Your task to perform on an android device: Show me productivity apps on the Play Store Image 0: 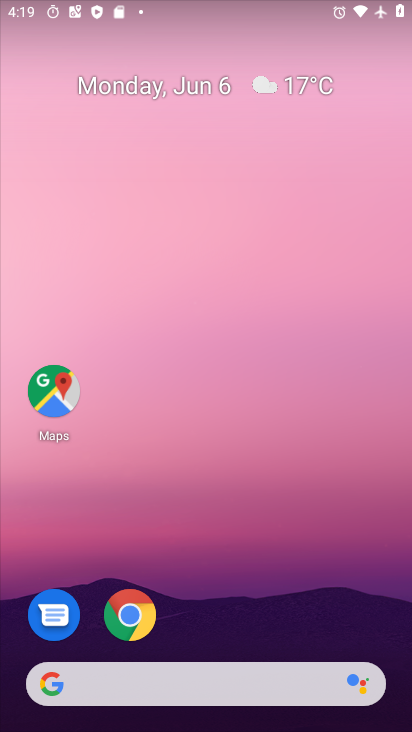
Step 0: drag from (251, 547) to (168, 0)
Your task to perform on an android device: Show me productivity apps on the Play Store Image 1: 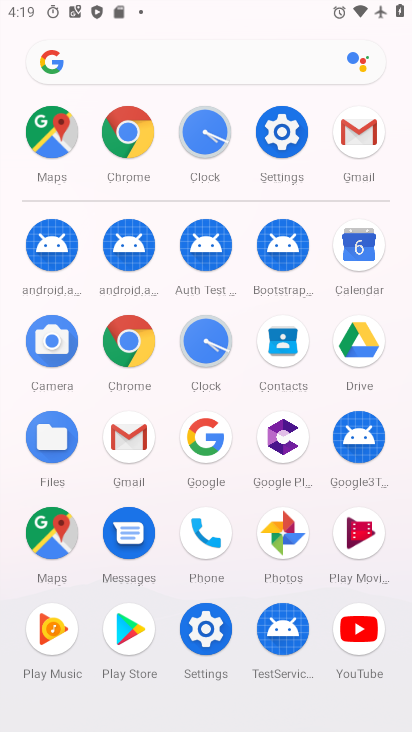
Step 1: click (130, 622)
Your task to perform on an android device: Show me productivity apps on the Play Store Image 2: 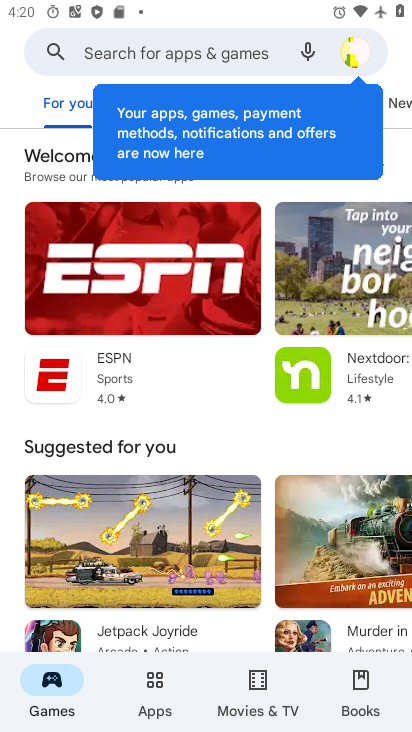
Step 2: drag from (174, 563) to (166, 248)
Your task to perform on an android device: Show me productivity apps on the Play Store Image 3: 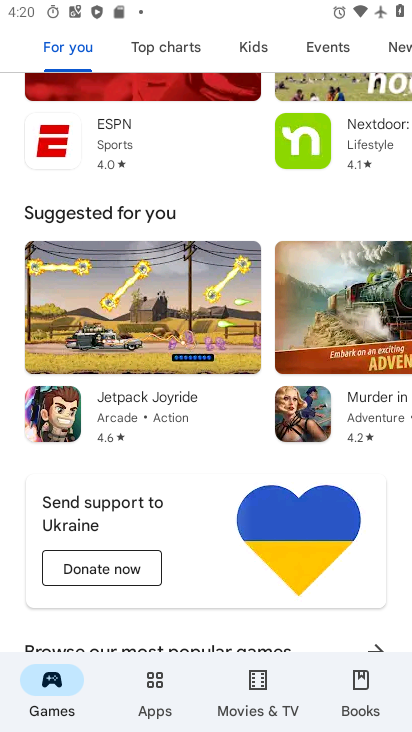
Step 3: drag from (202, 557) to (193, 209)
Your task to perform on an android device: Show me productivity apps on the Play Store Image 4: 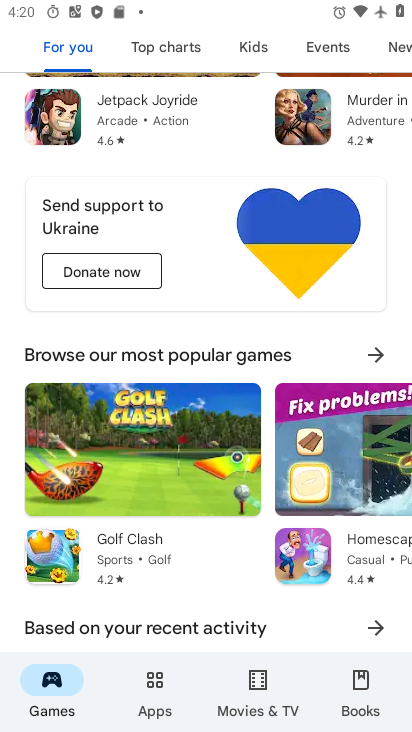
Step 4: click (154, 682)
Your task to perform on an android device: Show me productivity apps on the Play Store Image 5: 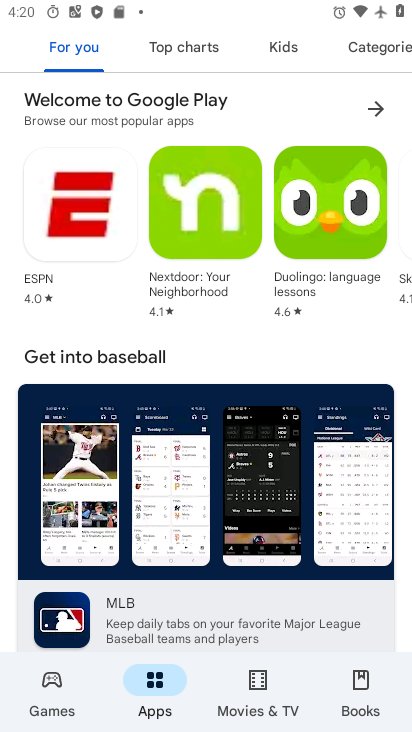
Step 5: click (368, 47)
Your task to perform on an android device: Show me productivity apps on the Play Store Image 6: 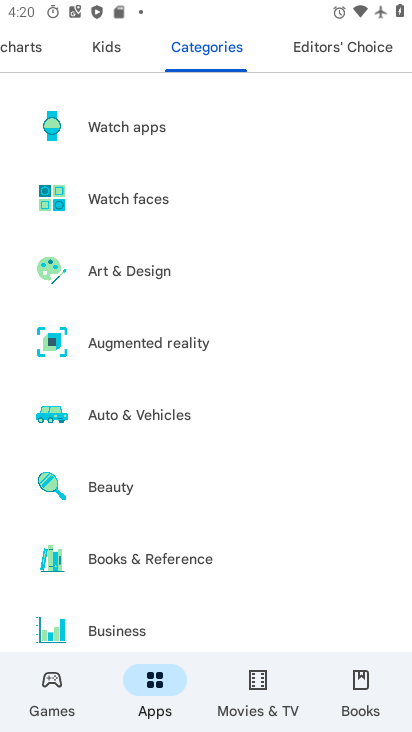
Step 6: drag from (225, 552) to (248, 73)
Your task to perform on an android device: Show me productivity apps on the Play Store Image 7: 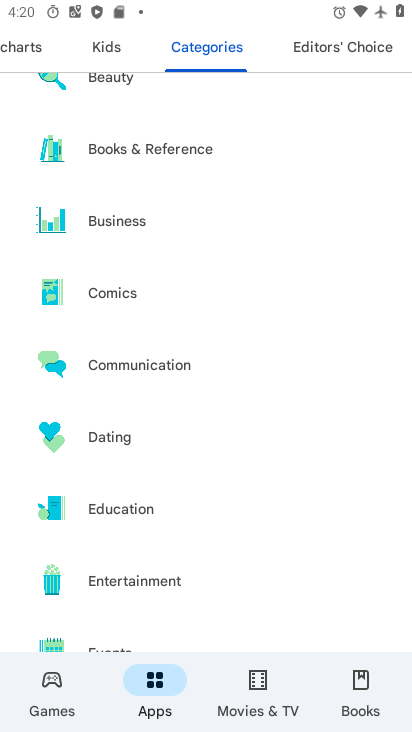
Step 7: drag from (202, 330) to (210, 128)
Your task to perform on an android device: Show me productivity apps on the Play Store Image 8: 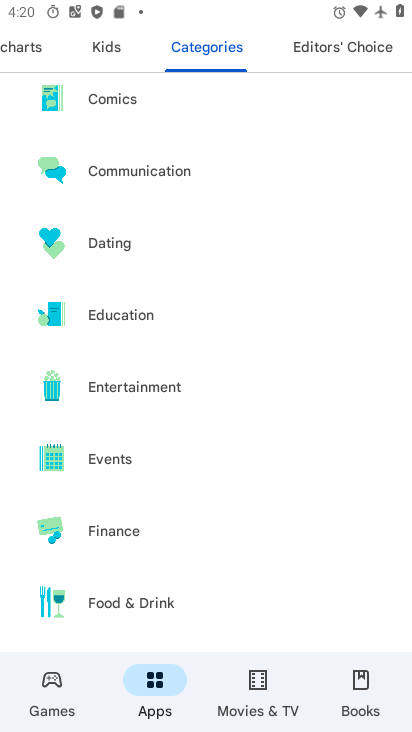
Step 8: drag from (199, 575) to (204, 147)
Your task to perform on an android device: Show me productivity apps on the Play Store Image 9: 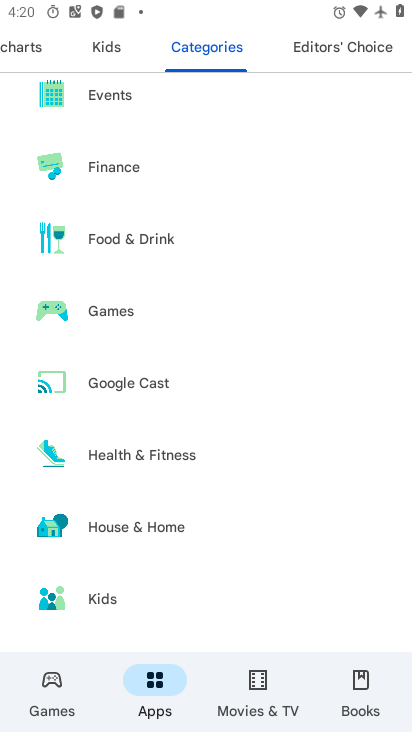
Step 9: drag from (181, 550) to (207, 93)
Your task to perform on an android device: Show me productivity apps on the Play Store Image 10: 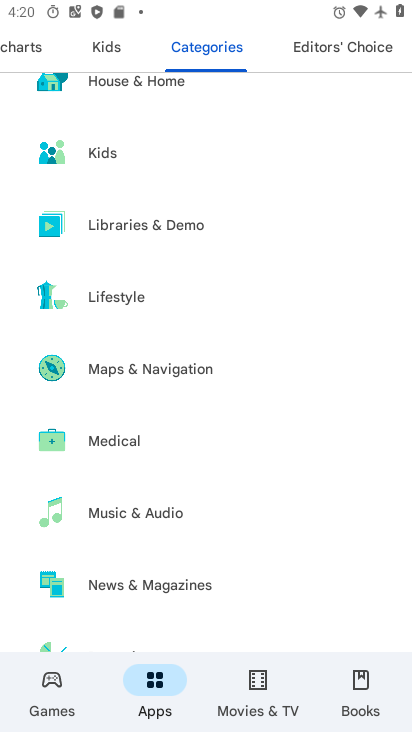
Step 10: drag from (155, 562) to (176, 98)
Your task to perform on an android device: Show me productivity apps on the Play Store Image 11: 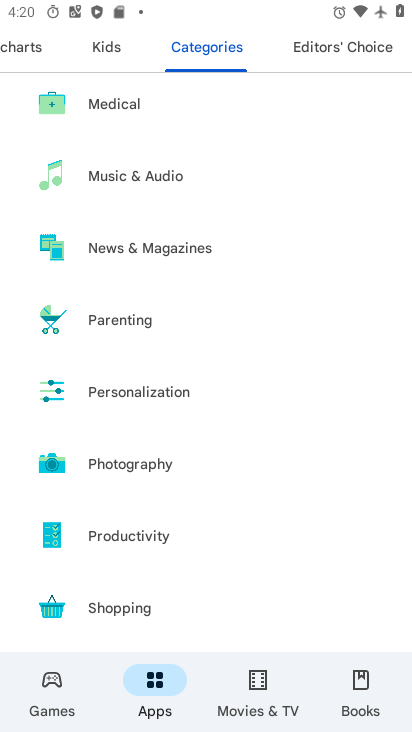
Step 11: click (124, 527)
Your task to perform on an android device: Show me productivity apps on the Play Store Image 12: 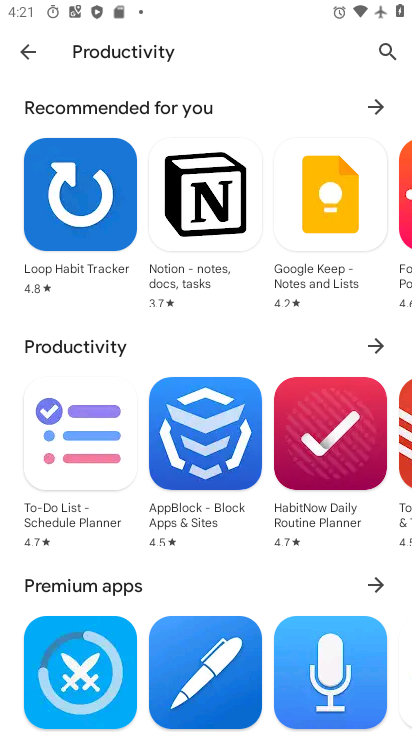
Step 12: task complete